Your task to perform on an android device: Open calendar and show me the fourth week of next month Image 0: 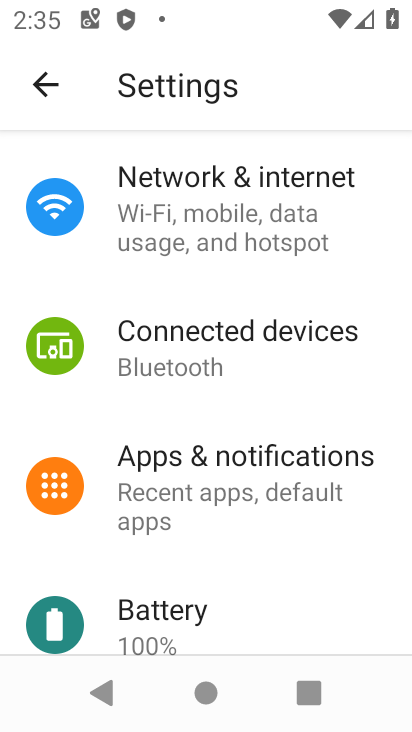
Step 0: press home button
Your task to perform on an android device: Open calendar and show me the fourth week of next month Image 1: 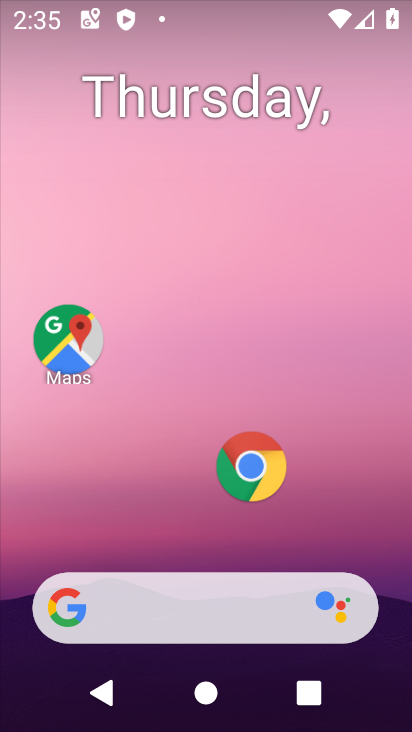
Step 1: drag from (188, 535) to (235, 156)
Your task to perform on an android device: Open calendar and show me the fourth week of next month Image 2: 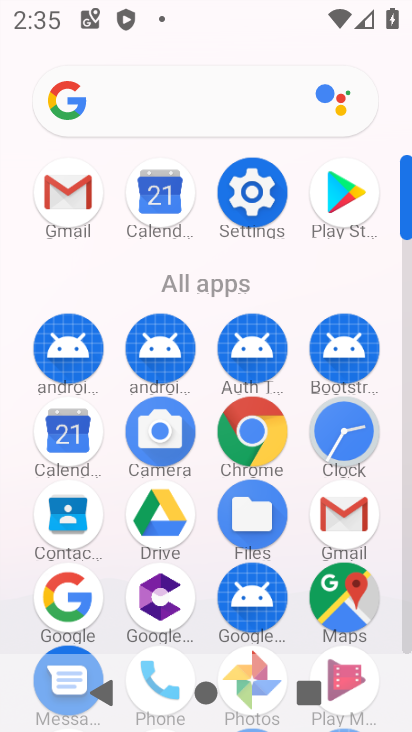
Step 2: click (47, 432)
Your task to perform on an android device: Open calendar and show me the fourth week of next month Image 3: 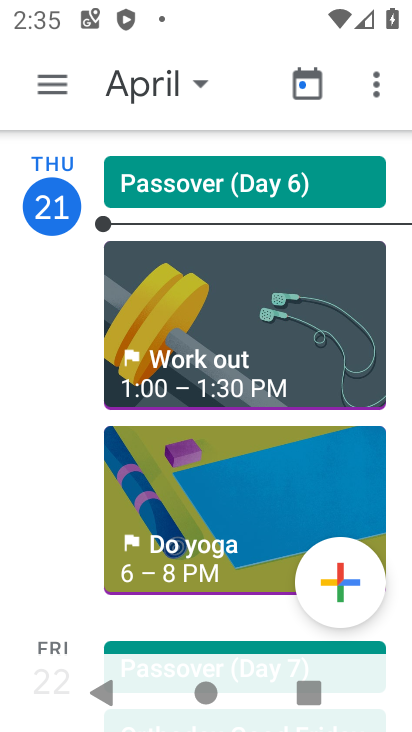
Step 3: click (175, 83)
Your task to perform on an android device: Open calendar and show me the fourth week of next month Image 4: 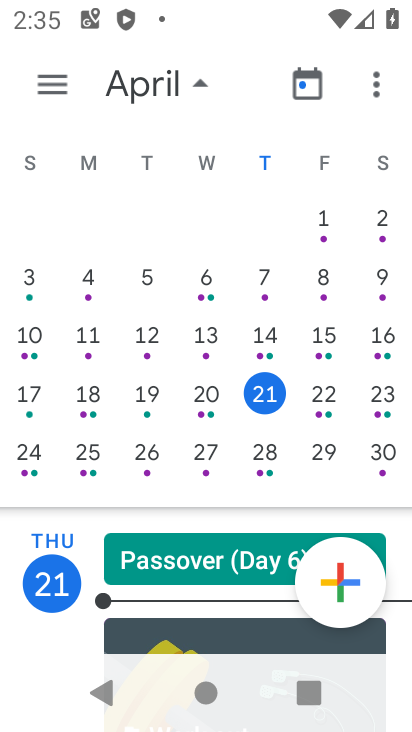
Step 4: drag from (351, 313) to (51, 307)
Your task to perform on an android device: Open calendar and show me the fourth week of next month Image 5: 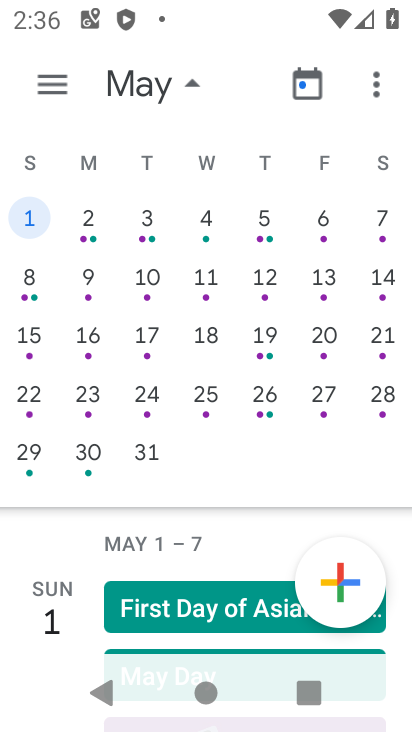
Step 5: click (70, 399)
Your task to perform on an android device: Open calendar and show me the fourth week of next month Image 6: 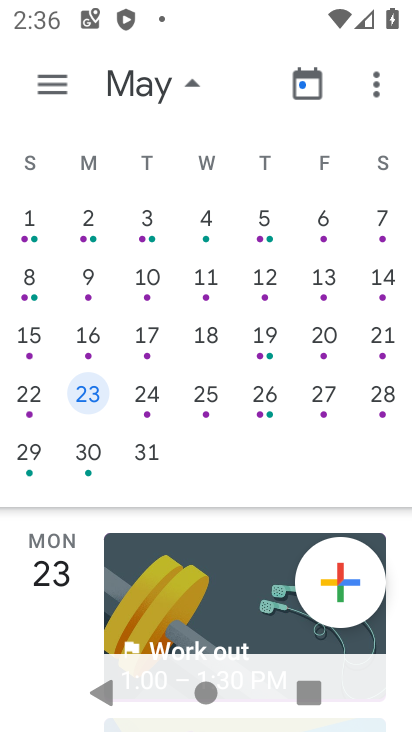
Step 6: task complete